Your task to perform on an android device: Search for vegetarian restaurants on Maps Image 0: 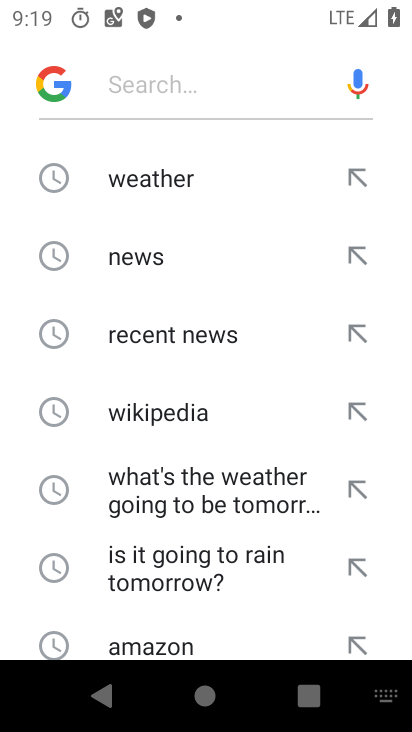
Step 0: press home button
Your task to perform on an android device: Search for vegetarian restaurants on Maps Image 1: 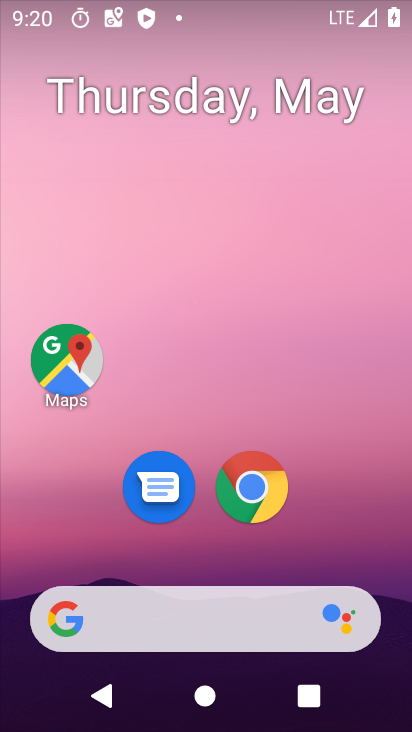
Step 1: drag from (244, 577) to (355, 98)
Your task to perform on an android device: Search for vegetarian restaurants on Maps Image 2: 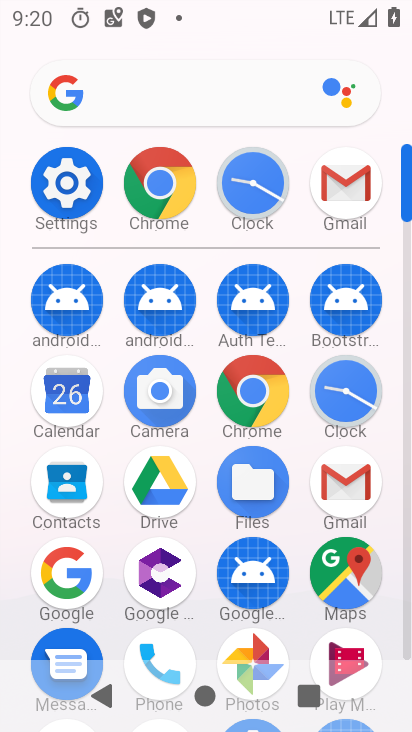
Step 2: drag from (240, 462) to (302, 154)
Your task to perform on an android device: Search for vegetarian restaurants on Maps Image 3: 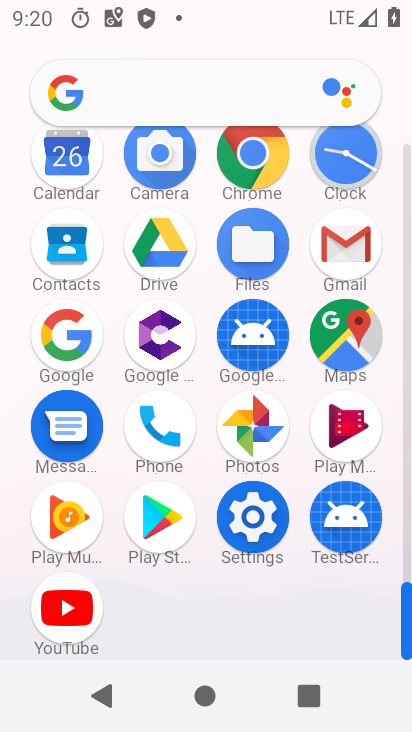
Step 3: click (345, 344)
Your task to perform on an android device: Search for vegetarian restaurants on Maps Image 4: 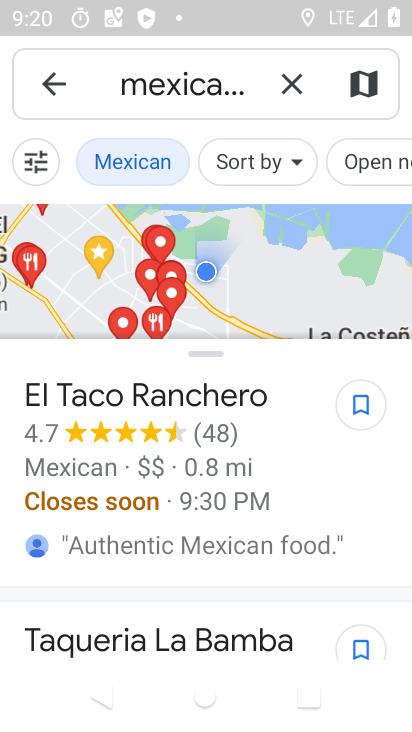
Step 4: click (290, 85)
Your task to perform on an android device: Search for vegetarian restaurants on Maps Image 5: 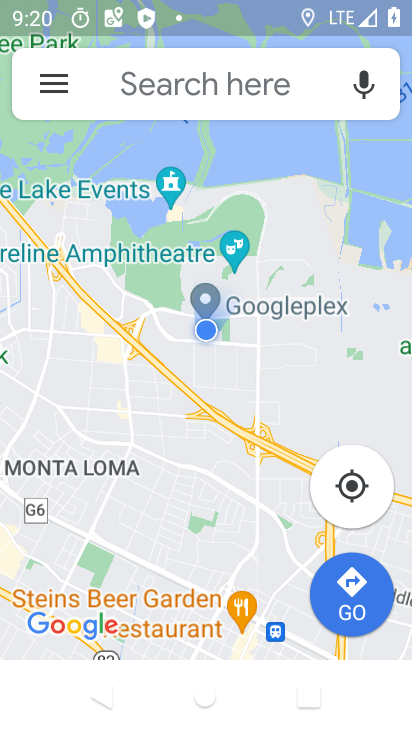
Step 5: click (290, 86)
Your task to perform on an android device: Search for vegetarian restaurants on Maps Image 6: 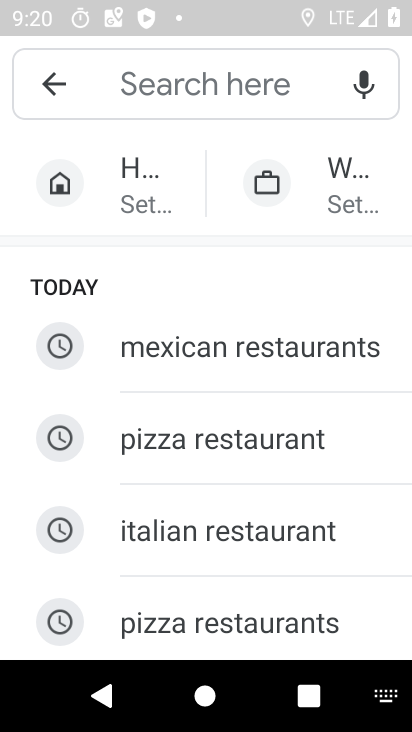
Step 6: drag from (223, 510) to (288, 201)
Your task to perform on an android device: Search for vegetarian restaurants on Maps Image 7: 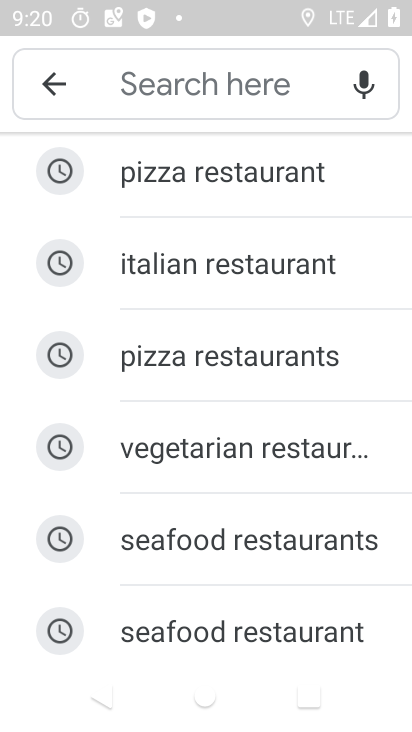
Step 7: click (221, 450)
Your task to perform on an android device: Search for vegetarian restaurants on Maps Image 8: 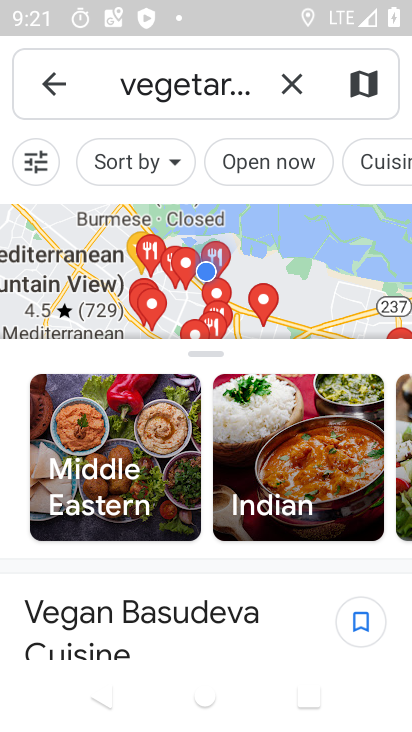
Step 8: task complete